Your task to perform on an android device: toggle location history Image 0: 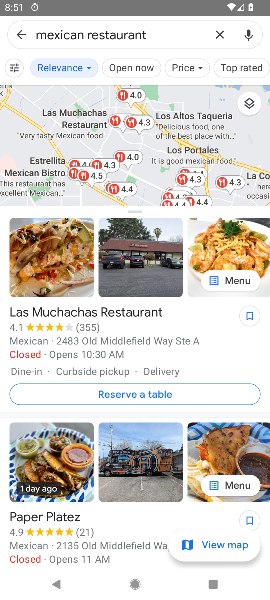
Step 0: press home button
Your task to perform on an android device: toggle location history Image 1: 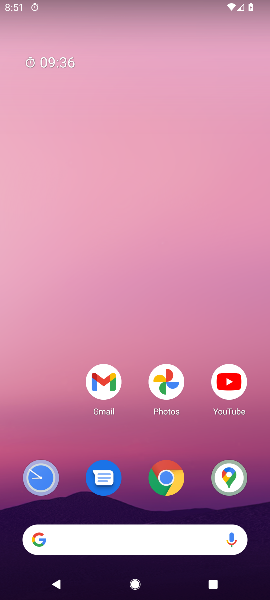
Step 1: drag from (125, 519) to (161, 147)
Your task to perform on an android device: toggle location history Image 2: 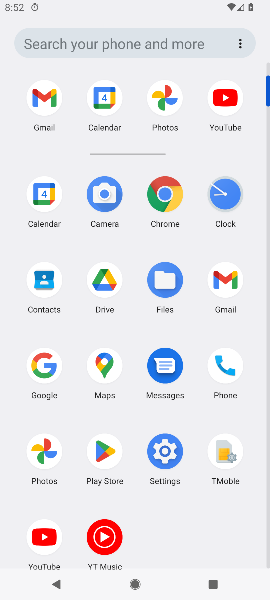
Step 2: click (109, 364)
Your task to perform on an android device: toggle location history Image 3: 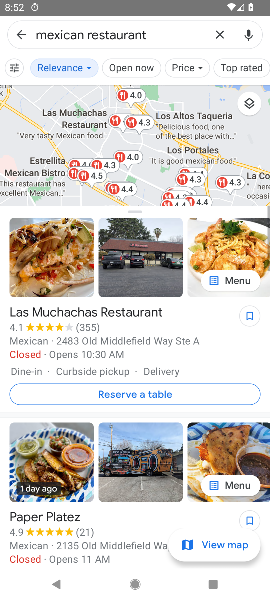
Step 3: click (14, 32)
Your task to perform on an android device: toggle location history Image 4: 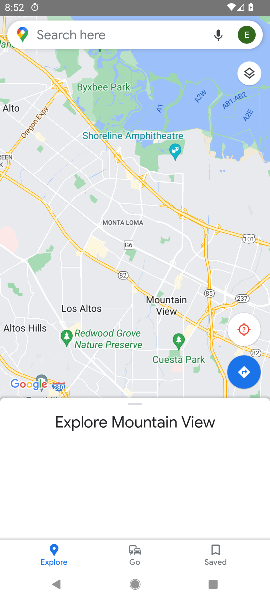
Step 4: click (251, 32)
Your task to perform on an android device: toggle location history Image 5: 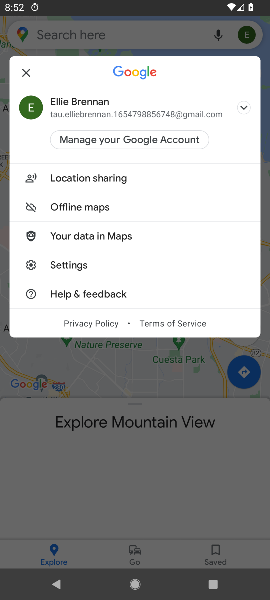
Step 5: click (76, 263)
Your task to perform on an android device: toggle location history Image 6: 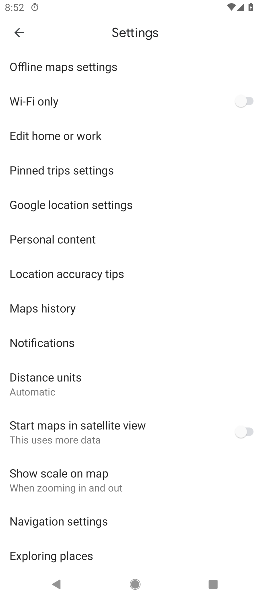
Step 6: drag from (37, 390) to (82, 137)
Your task to perform on an android device: toggle location history Image 7: 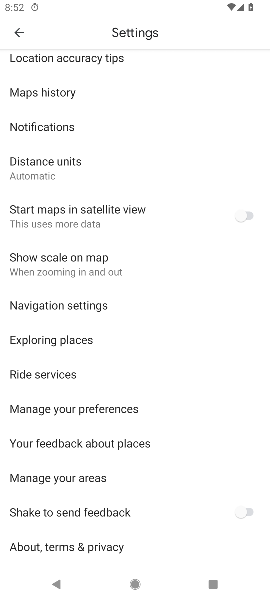
Step 7: click (59, 95)
Your task to perform on an android device: toggle location history Image 8: 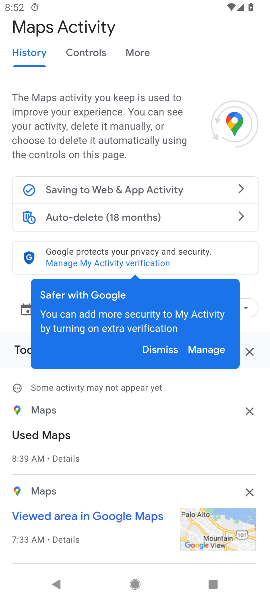
Step 8: click (176, 354)
Your task to perform on an android device: toggle location history Image 9: 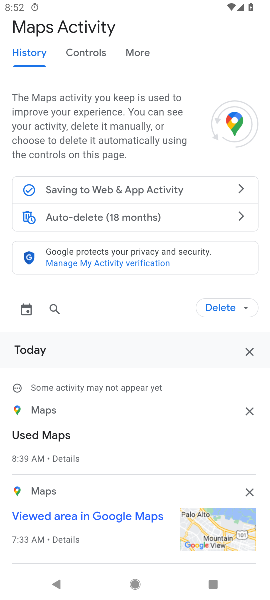
Step 9: click (225, 306)
Your task to perform on an android device: toggle location history Image 10: 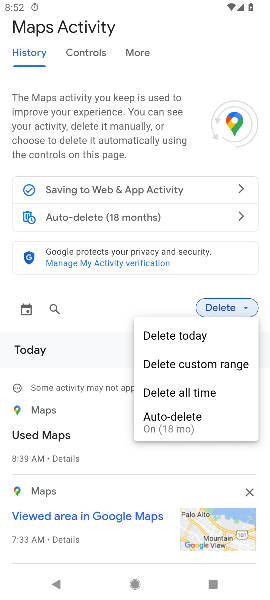
Step 10: click (180, 396)
Your task to perform on an android device: toggle location history Image 11: 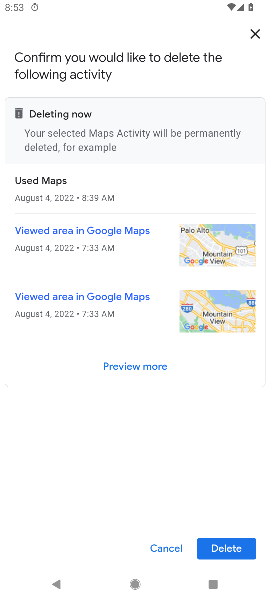
Step 11: click (253, 29)
Your task to perform on an android device: toggle location history Image 12: 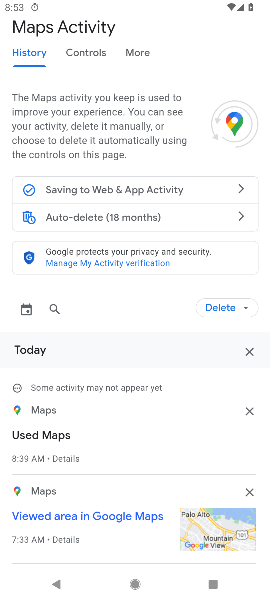
Step 12: drag from (147, 443) to (164, 590)
Your task to perform on an android device: toggle location history Image 13: 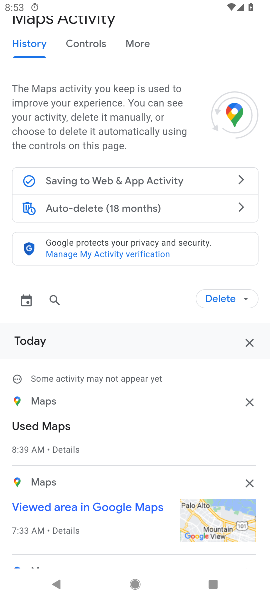
Step 13: press back button
Your task to perform on an android device: toggle location history Image 14: 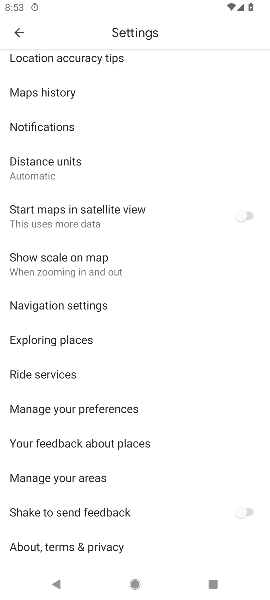
Step 14: drag from (83, 505) to (96, 226)
Your task to perform on an android device: toggle location history Image 15: 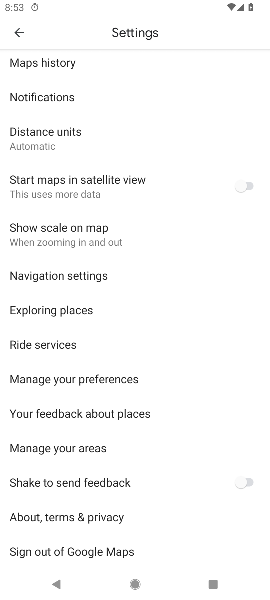
Step 15: drag from (137, 181) to (172, 520)
Your task to perform on an android device: toggle location history Image 16: 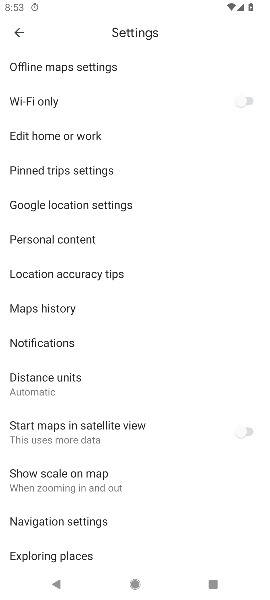
Step 16: click (18, 307)
Your task to perform on an android device: toggle location history Image 17: 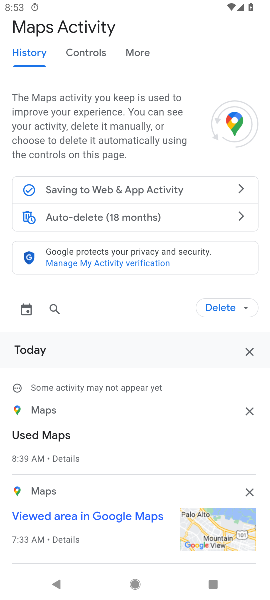
Step 17: click (156, 257)
Your task to perform on an android device: toggle location history Image 18: 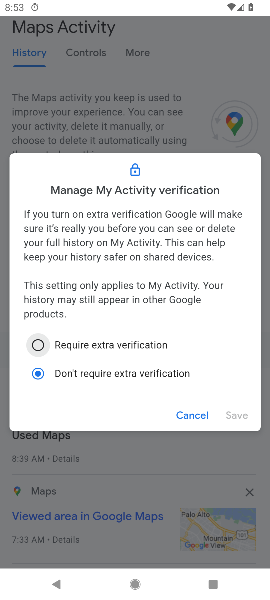
Step 18: click (175, 415)
Your task to perform on an android device: toggle location history Image 19: 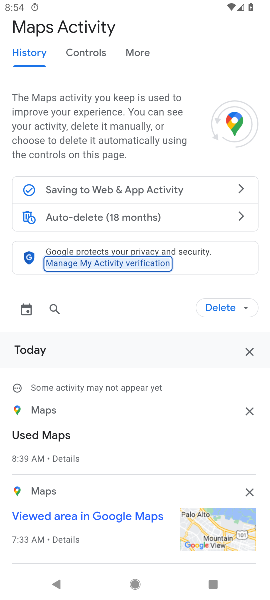
Step 19: click (72, 56)
Your task to perform on an android device: toggle location history Image 20: 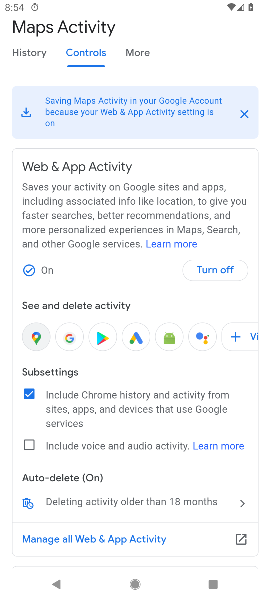
Step 20: click (218, 266)
Your task to perform on an android device: toggle location history Image 21: 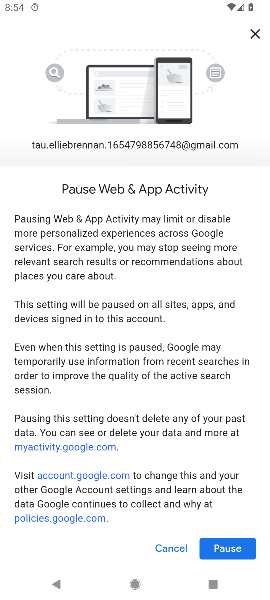
Step 21: click (218, 256)
Your task to perform on an android device: toggle location history Image 22: 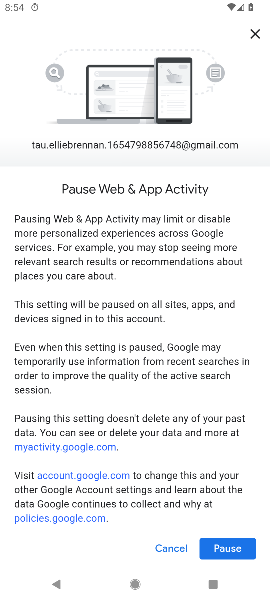
Step 22: click (212, 544)
Your task to perform on an android device: toggle location history Image 23: 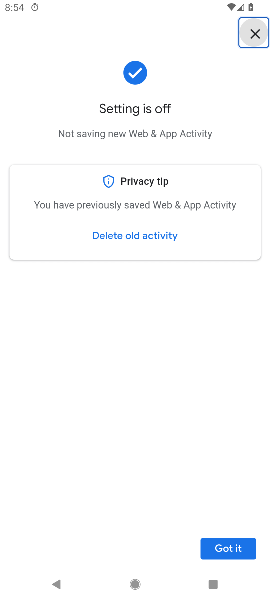
Step 23: click (215, 550)
Your task to perform on an android device: toggle location history Image 24: 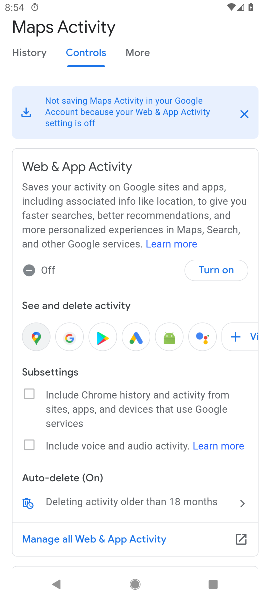
Step 24: task complete